Your task to perform on an android device: Go to CNN.com Image 0: 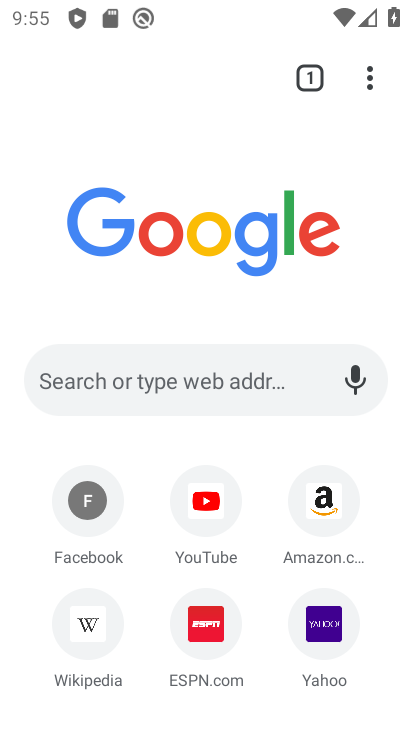
Step 0: click (168, 375)
Your task to perform on an android device: Go to CNN.com Image 1: 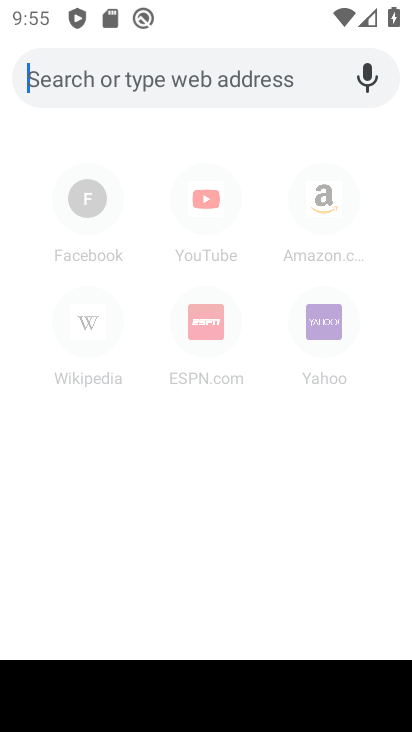
Step 1: type "CNN.com"
Your task to perform on an android device: Go to CNN.com Image 2: 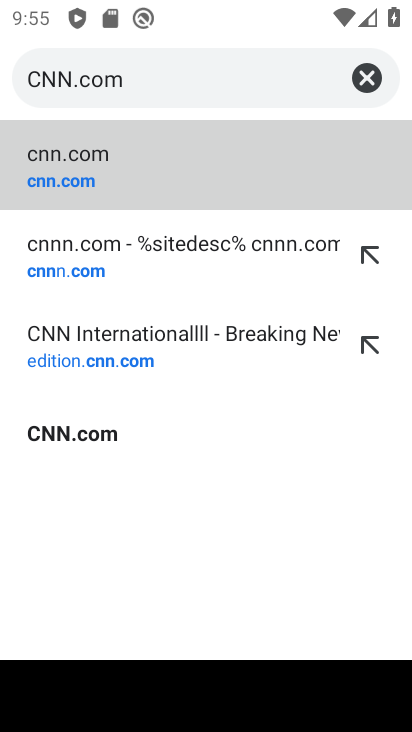
Step 2: click (81, 165)
Your task to perform on an android device: Go to CNN.com Image 3: 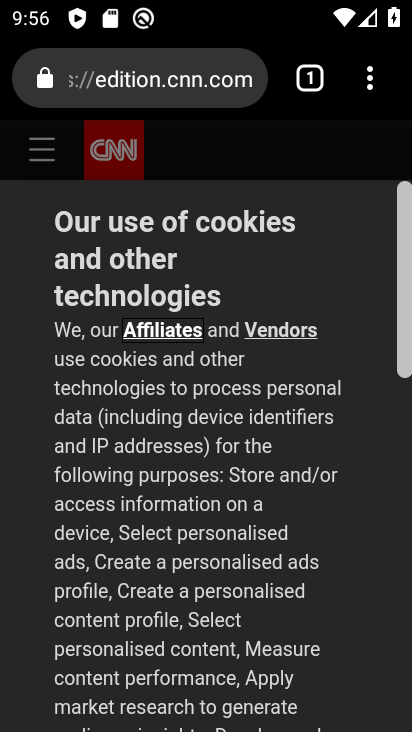
Step 3: drag from (276, 614) to (295, 245)
Your task to perform on an android device: Go to CNN.com Image 4: 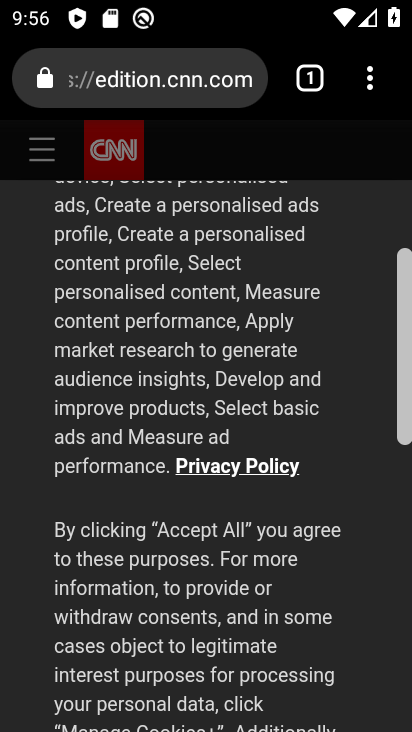
Step 4: drag from (206, 698) to (248, 273)
Your task to perform on an android device: Go to CNN.com Image 5: 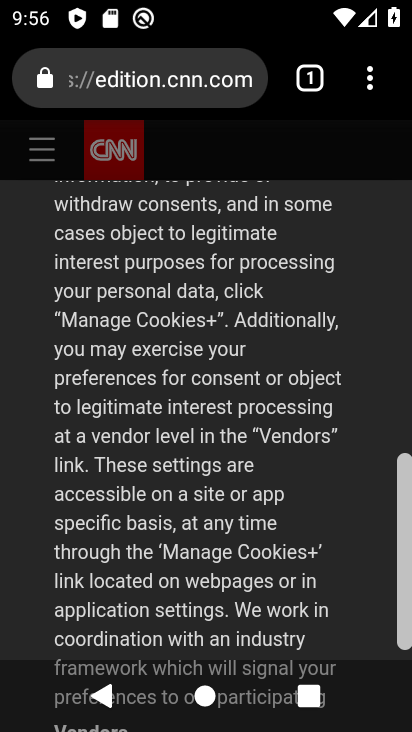
Step 5: drag from (205, 554) to (255, 241)
Your task to perform on an android device: Go to CNN.com Image 6: 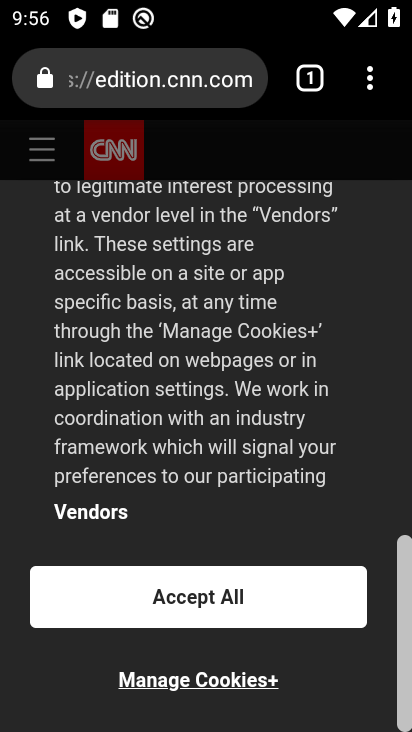
Step 6: click (187, 619)
Your task to perform on an android device: Go to CNN.com Image 7: 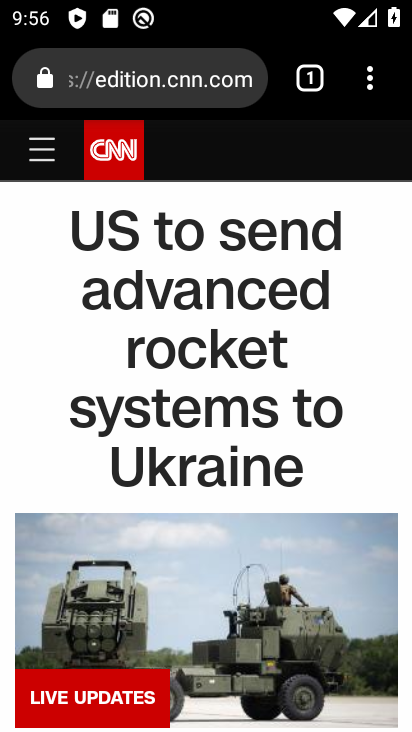
Step 7: task complete